Your task to perform on an android device: Open Google Maps Image 0: 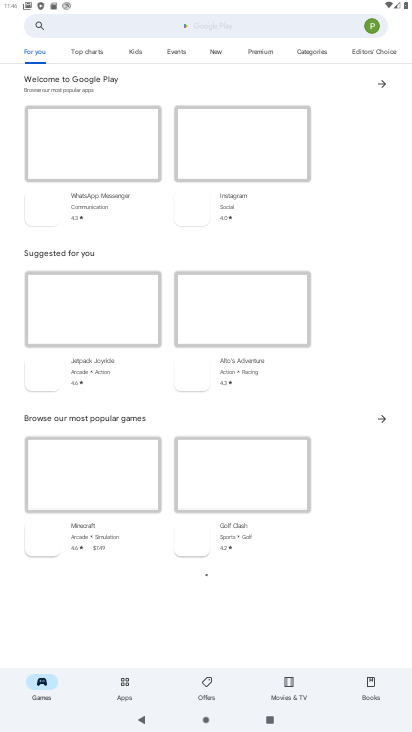
Step 0: press home button
Your task to perform on an android device: Open Google Maps Image 1: 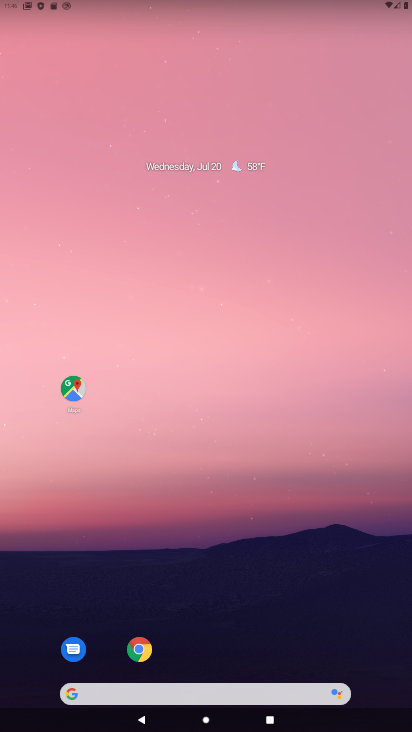
Step 1: click (73, 392)
Your task to perform on an android device: Open Google Maps Image 2: 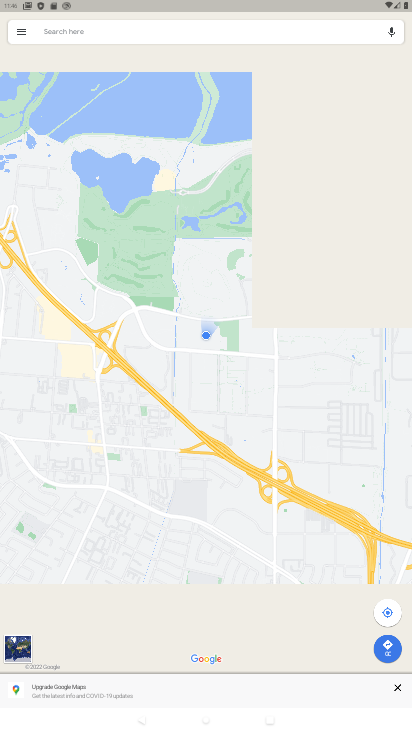
Step 2: task complete